Your task to perform on an android device: Open maps Image 0: 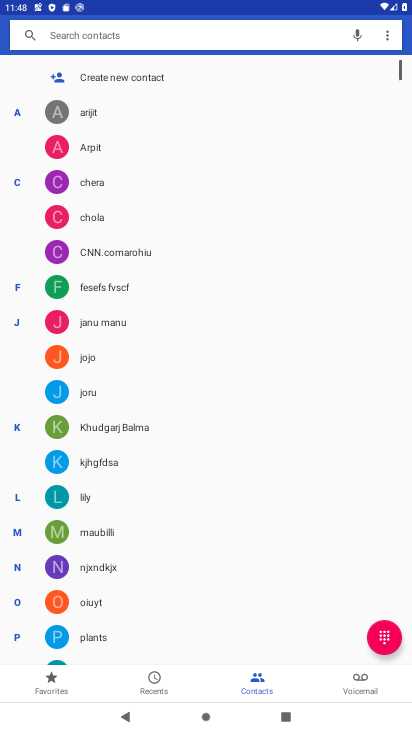
Step 0: press home button
Your task to perform on an android device: Open maps Image 1: 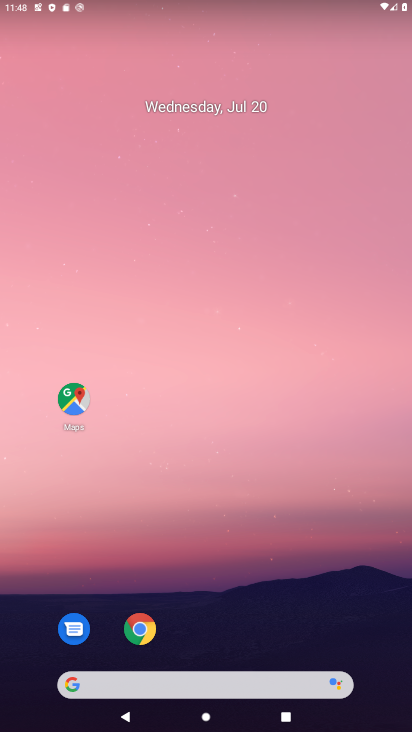
Step 1: click (86, 408)
Your task to perform on an android device: Open maps Image 2: 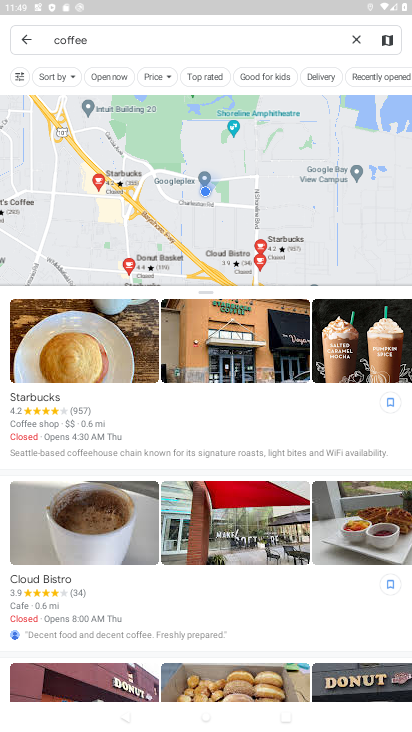
Step 2: task complete